Your task to perform on an android device: Is it going to rain today? Image 0: 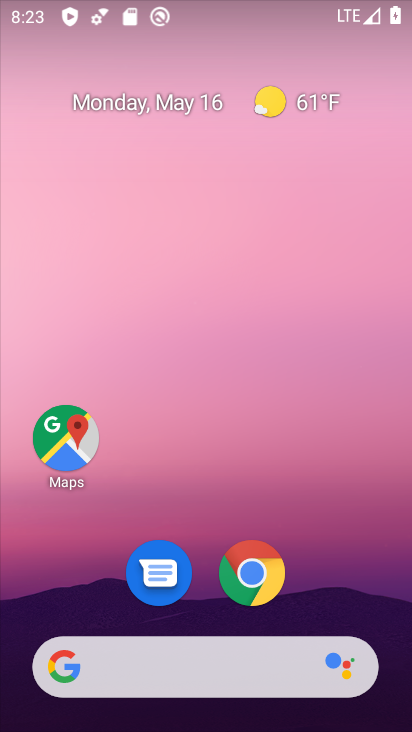
Step 0: click (275, 99)
Your task to perform on an android device: Is it going to rain today? Image 1: 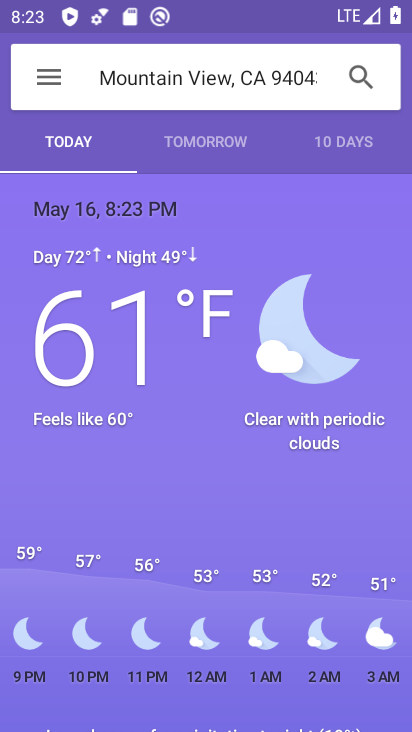
Step 1: task complete